Your task to perform on an android device: Go to settings Image 0: 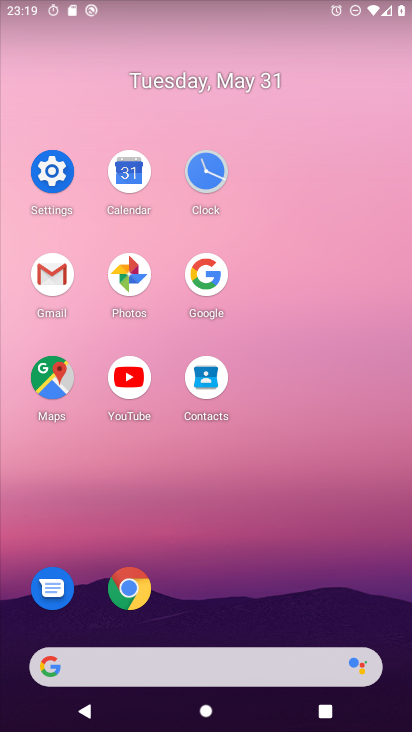
Step 0: click (52, 176)
Your task to perform on an android device: Go to settings Image 1: 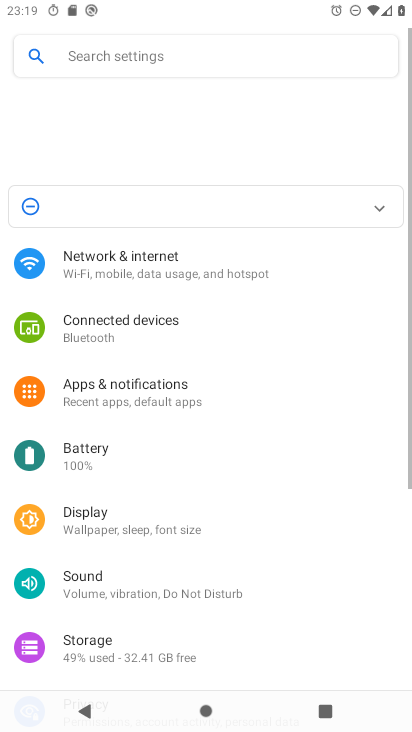
Step 1: task complete